Your task to perform on an android device: delete the emails in spam in the gmail app Image 0: 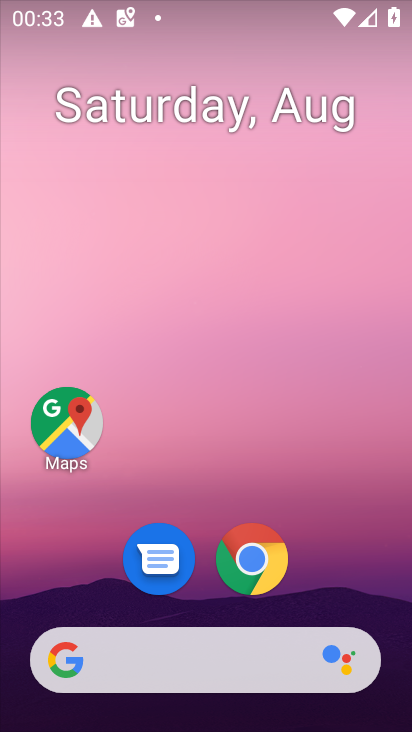
Step 0: drag from (395, 621) to (295, 0)
Your task to perform on an android device: delete the emails in spam in the gmail app Image 1: 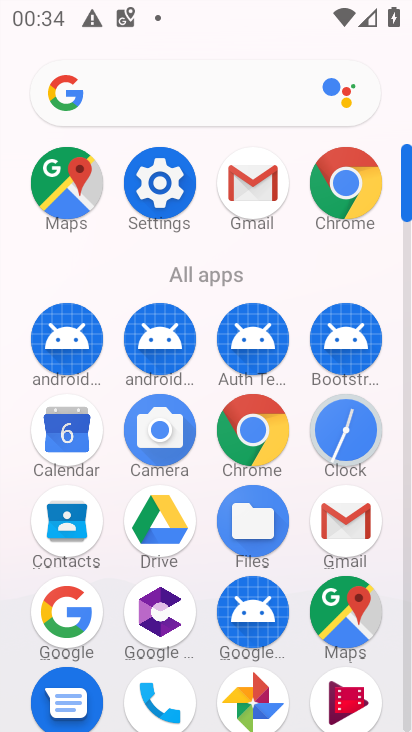
Step 1: click (254, 175)
Your task to perform on an android device: delete the emails in spam in the gmail app Image 2: 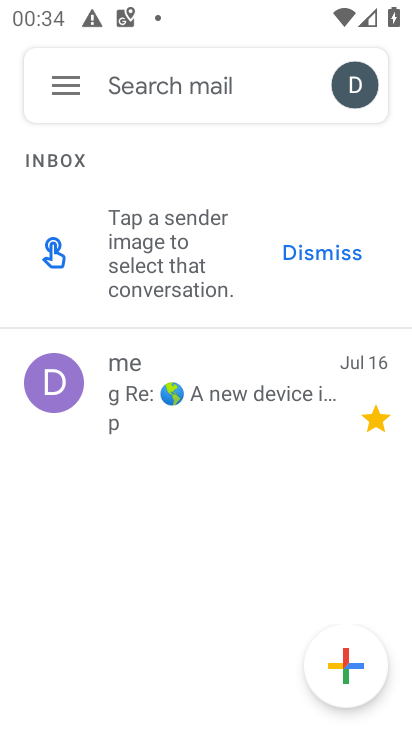
Step 2: click (74, 88)
Your task to perform on an android device: delete the emails in spam in the gmail app Image 3: 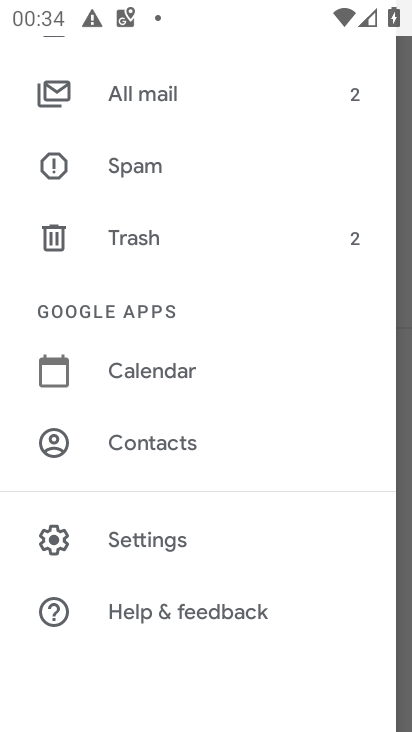
Step 3: click (163, 171)
Your task to perform on an android device: delete the emails in spam in the gmail app Image 4: 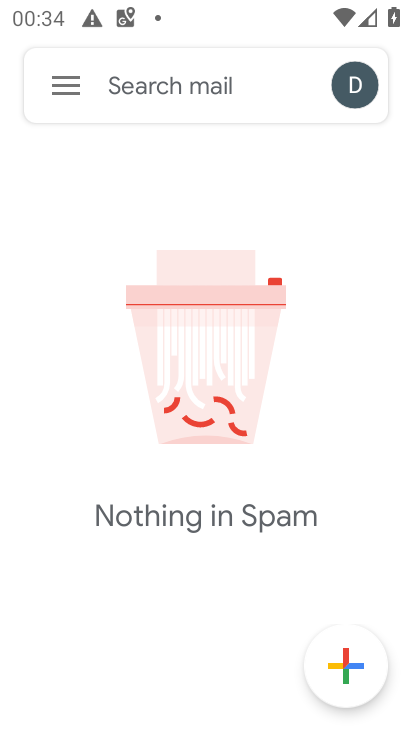
Step 4: task complete